Your task to perform on an android device: set the stopwatch Image 0: 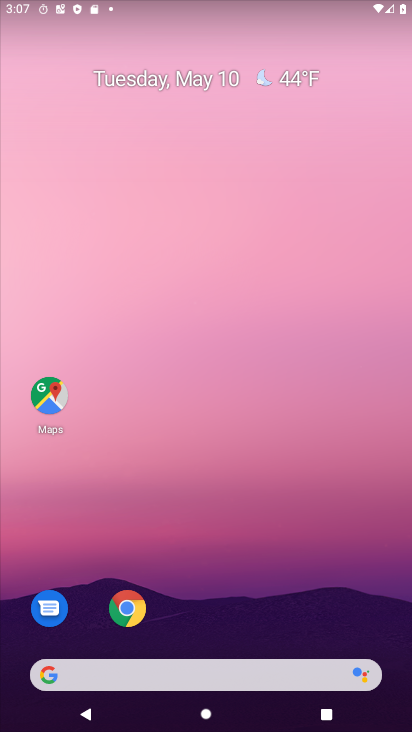
Step 0: drag from (373, 639) to (357, 99)
Your task to perform on an android device: set the stopwatch Image 1: 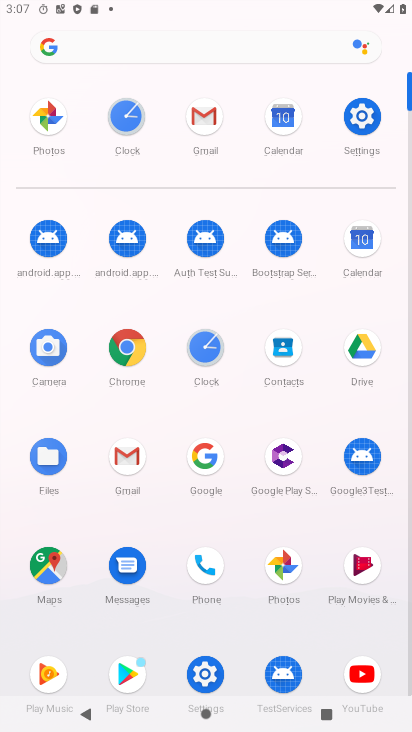
Step 1: click (121, 121)
Your task to perform on an android device: set the stopwatch Image 2: 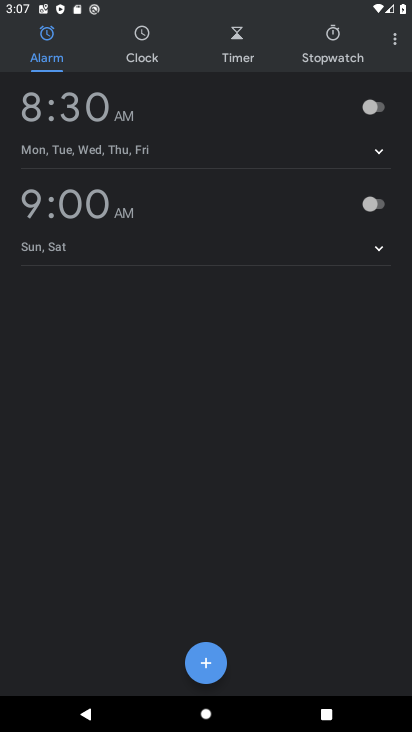
Step 2: click (322, 50)
Your task to perform on an android device: set the stopwatch Image 3: 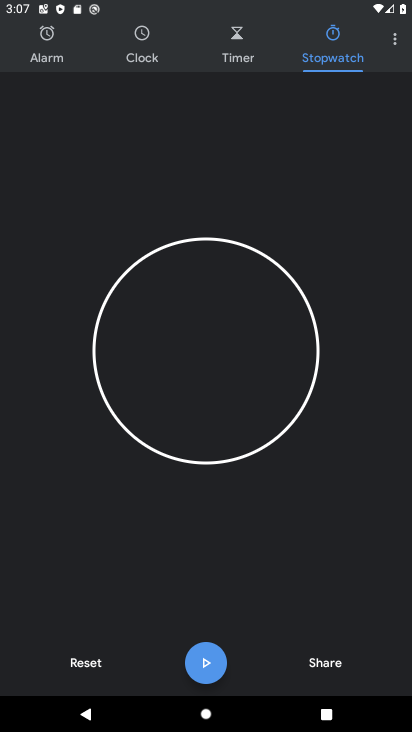
Step 3: click (86, 658)
Your task to perform on an android device: set the stopwatch Image 4: 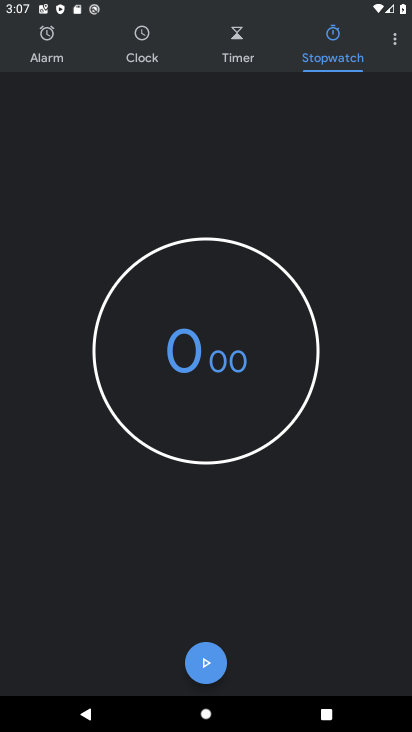
Step 4: click (213, 668)
Your task to perform on an android device: set the stopwatch Image 5: 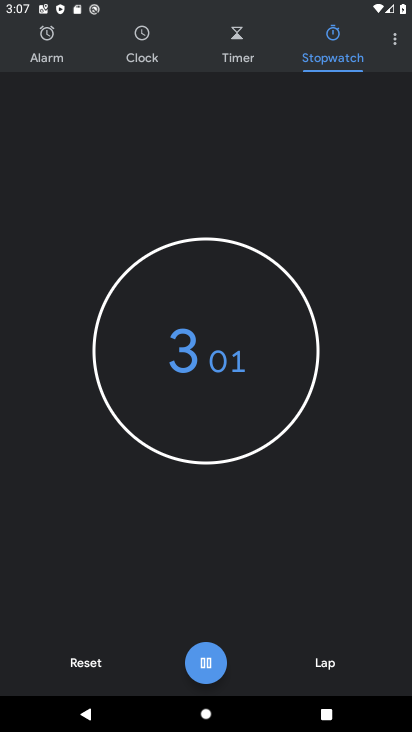
Step 5: click (209, 664)
Your task to perform on an android device: set the stopwatch Image 6: 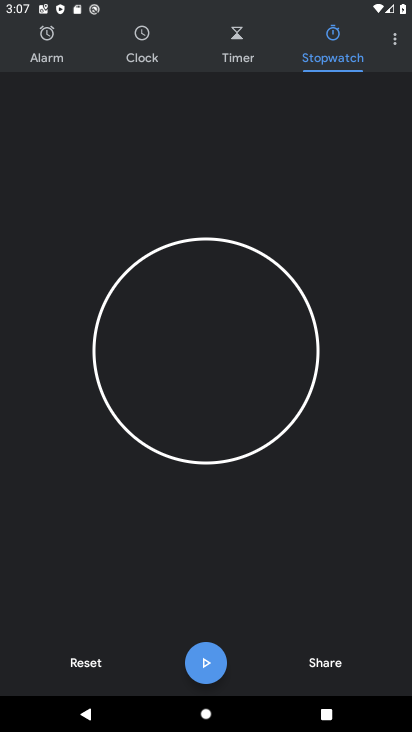
Step 6: task complete